Your task to perform on an android device: turn on translation in the chrome app Image 0: 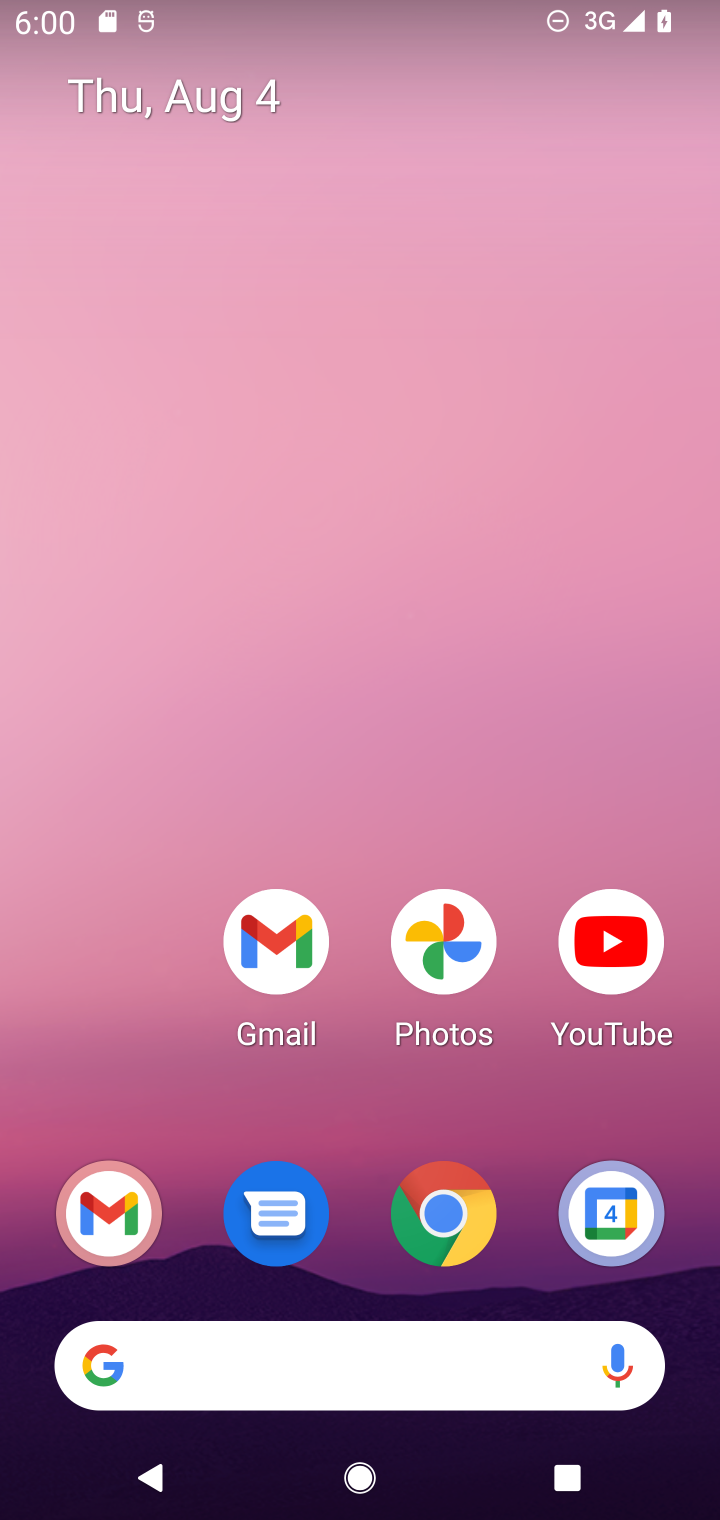
Step 0: press home button
Your task to perform on an android device: turn on translation in the chrome app Image 1: 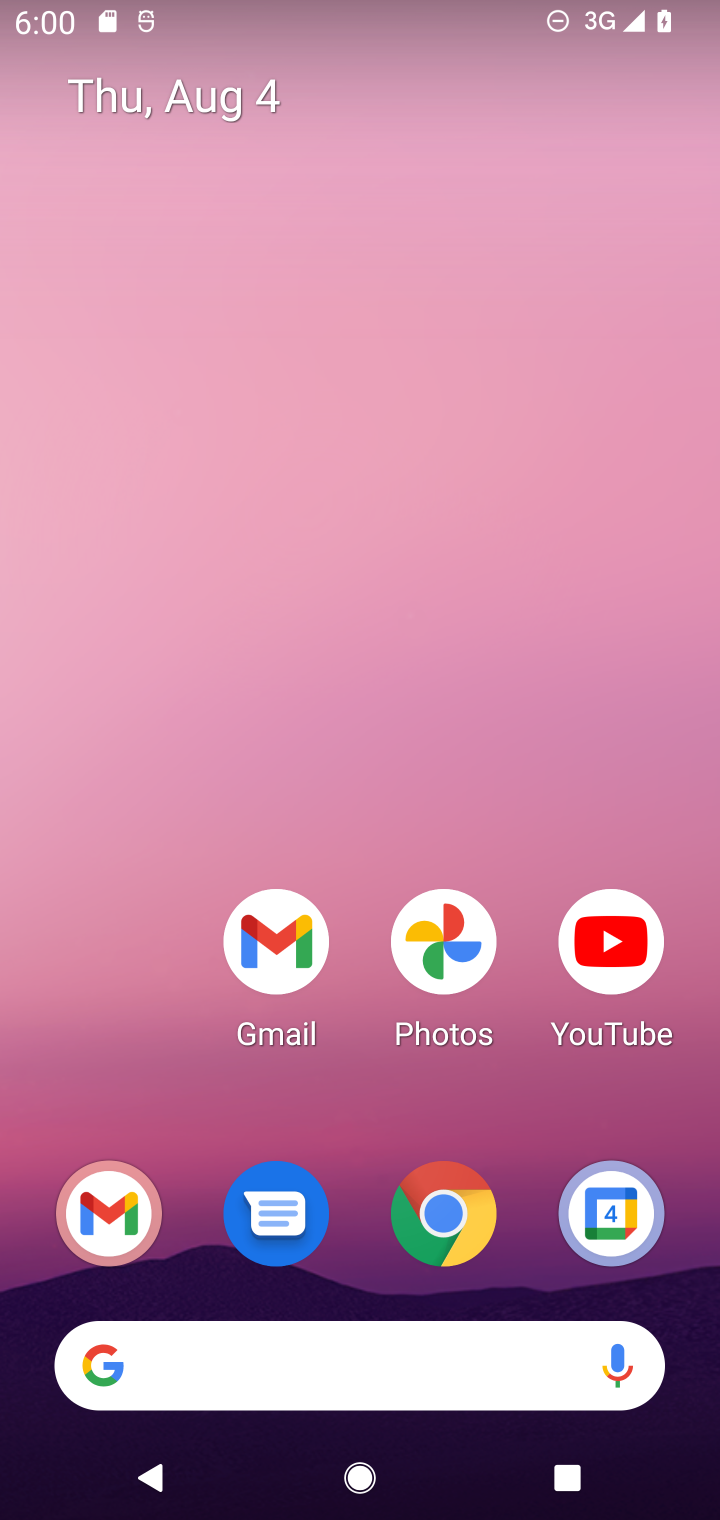
Step 1: drag from (187, 1135) to (216, 355)
Your task to perform on an android device: turn on translation in the chrome app Image 2: 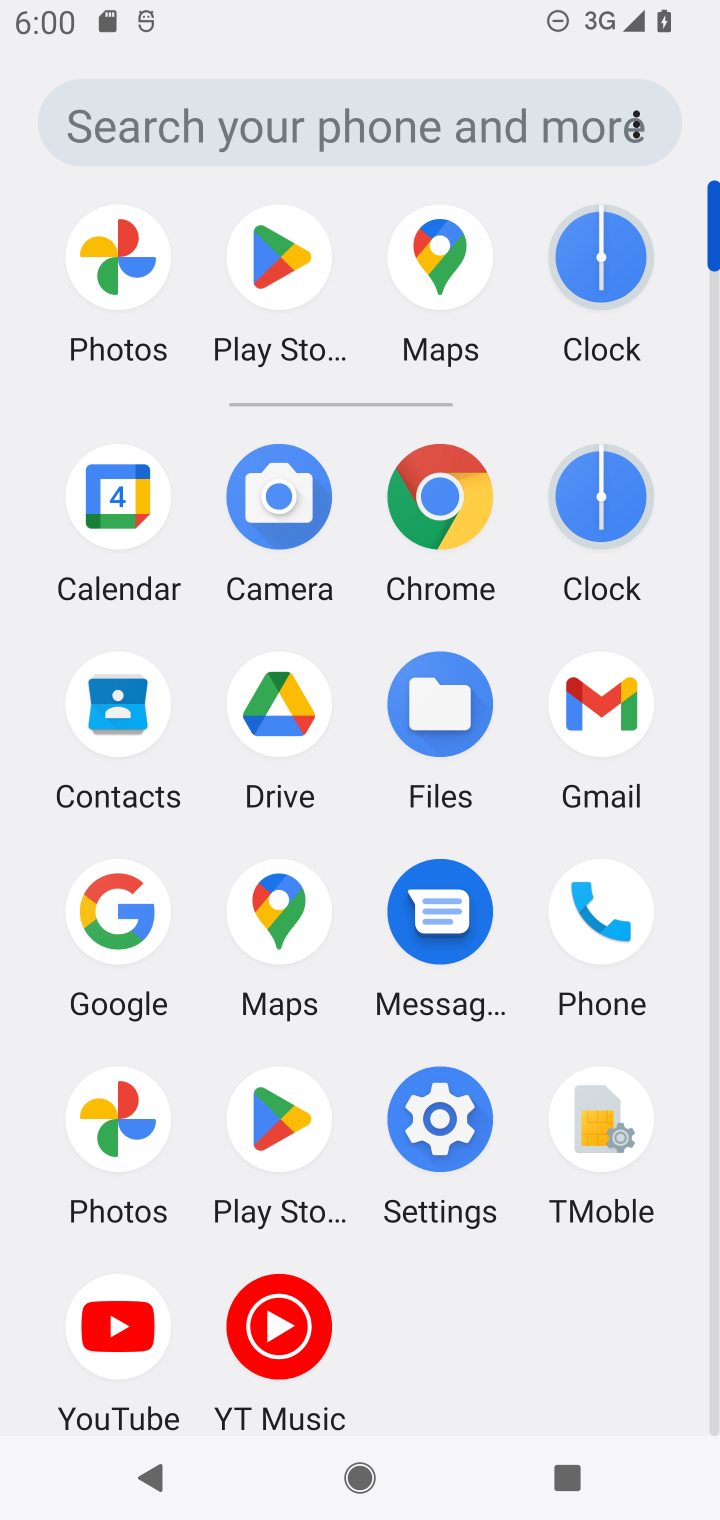
Step 2: click (449, 506)
Your task to perform on an android device: turn on translation in the chrome app Image 3: 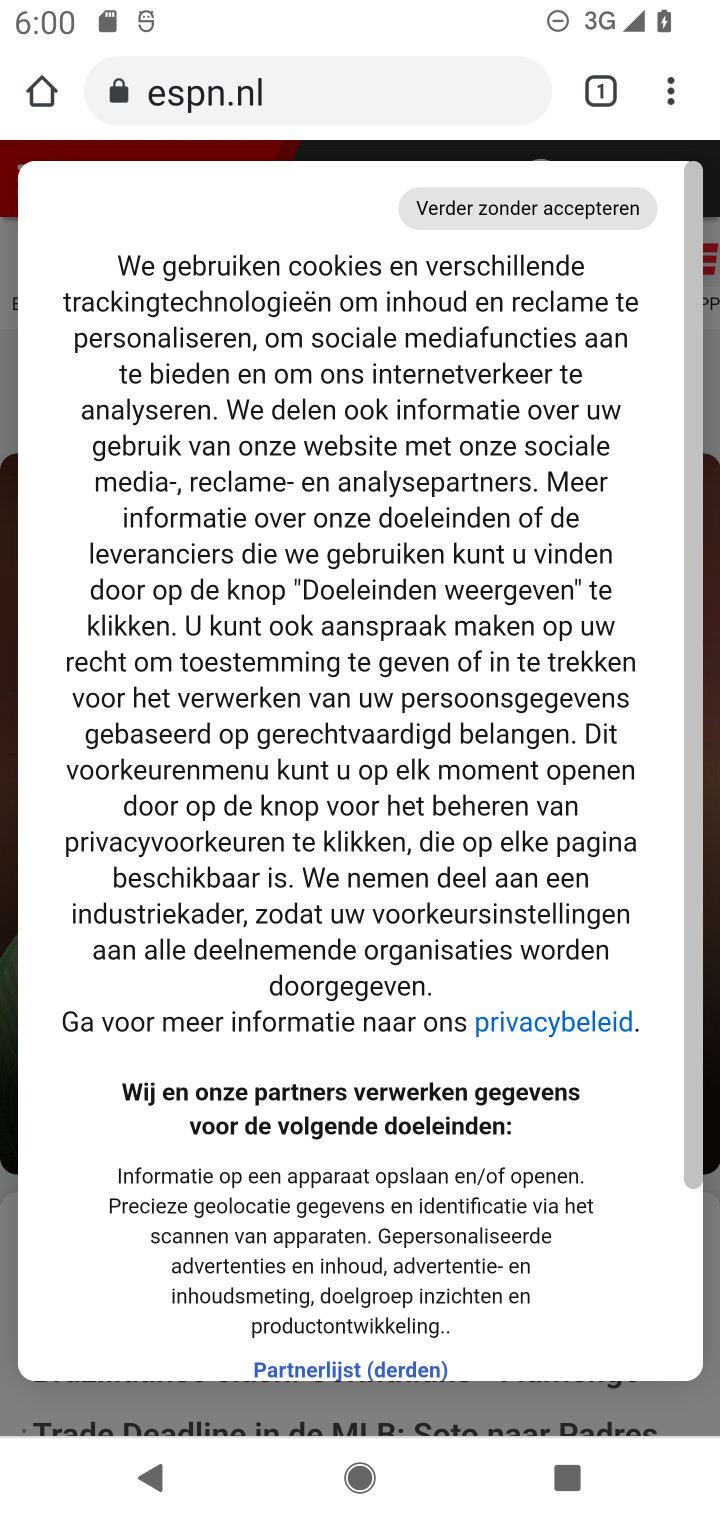
Step 3: click (673, 90)
Your task to perform on an android device: turn on translation in the chrome app Image 4: 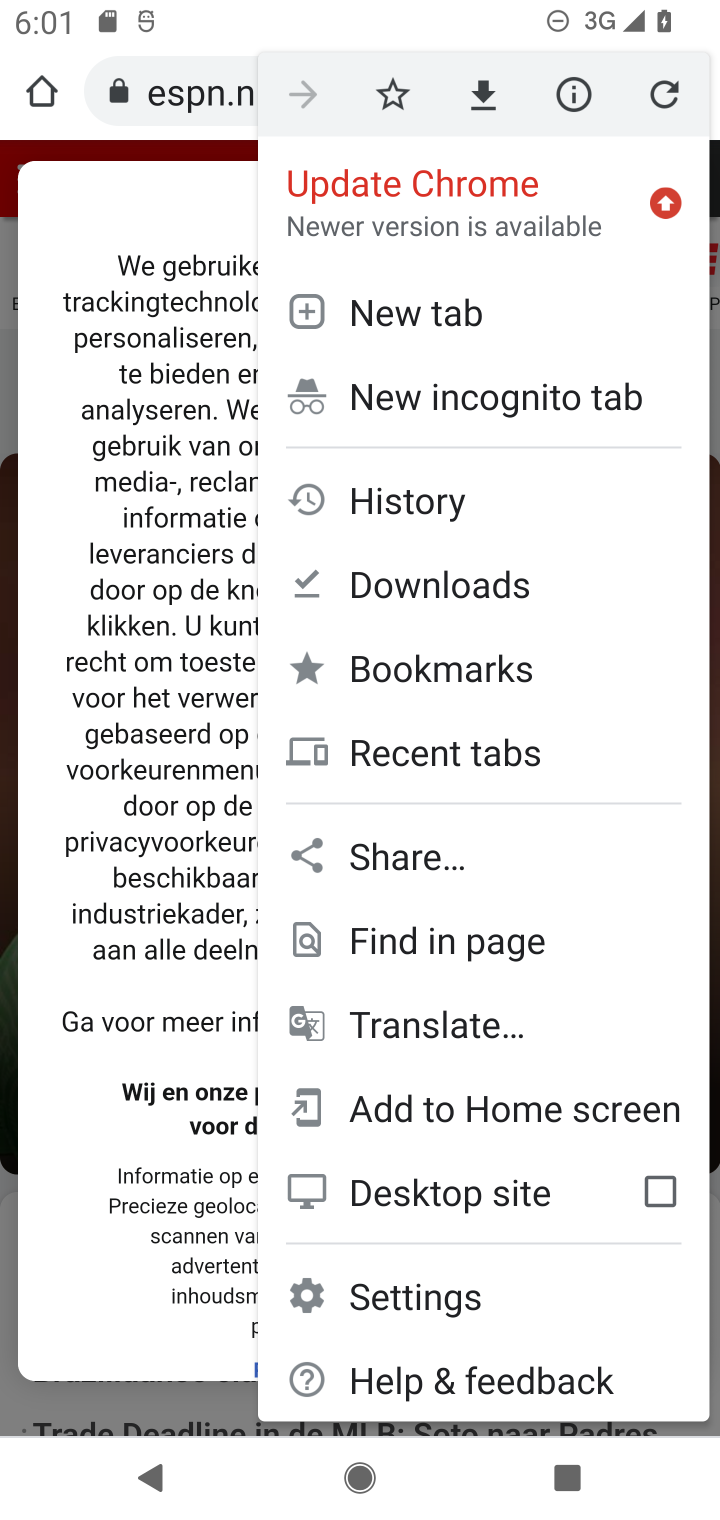
Step 4: click (468, 1304)
Your task to perform on an android device: turn on translation in the chrome app Image 5: 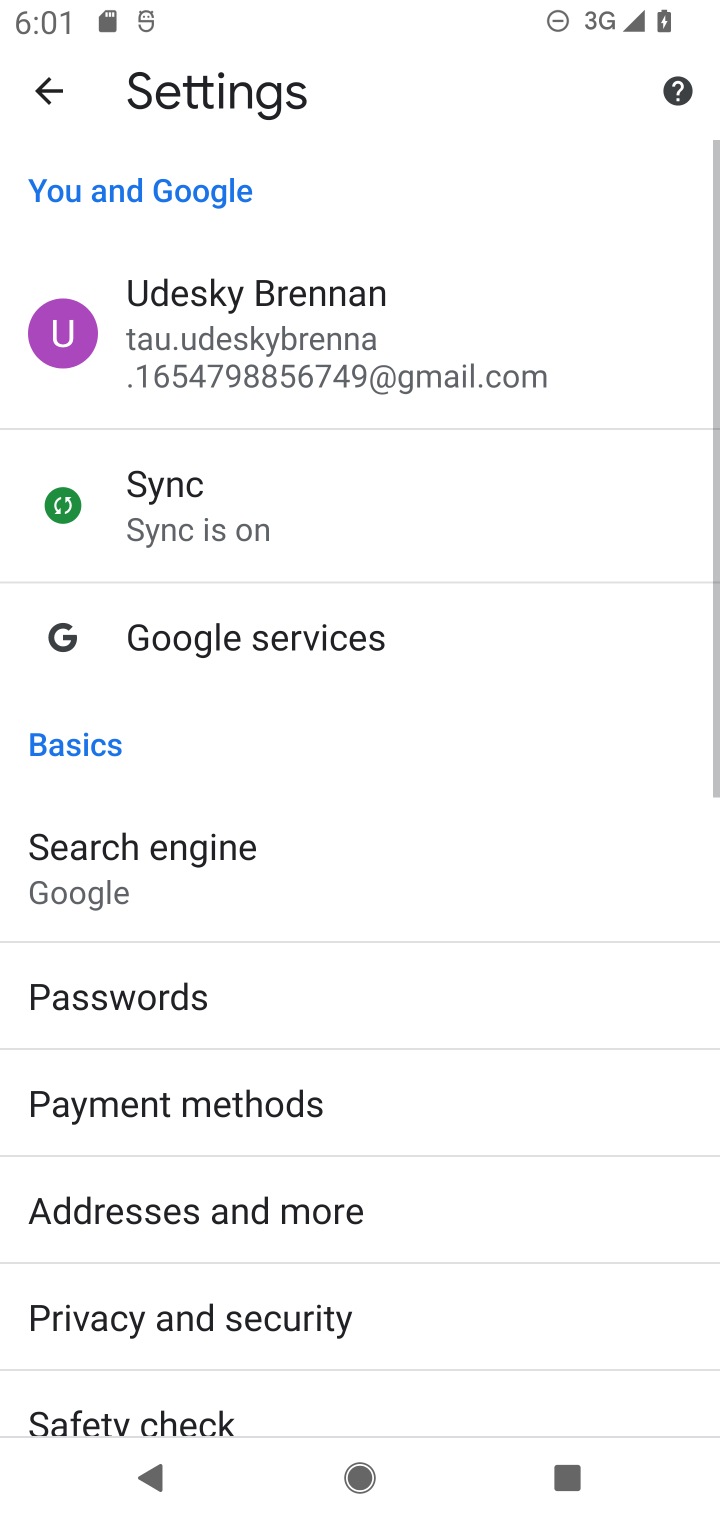
Step 5: drag from (517, 1101) to (516, 854)
Your task to perform on an android device: turn on translation in the chrome app Image 6: 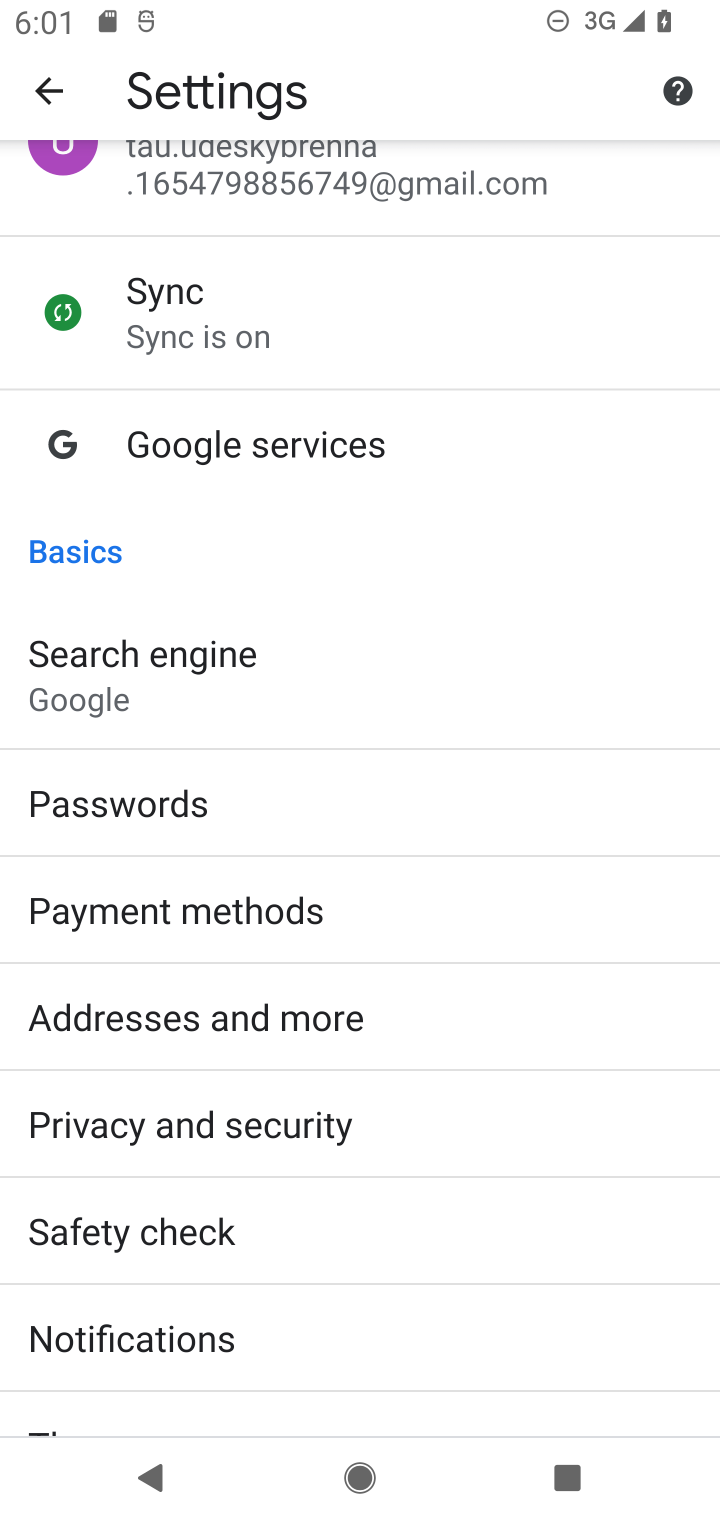
Step 6: drag from (517, 1152) to (524, 885)
Your task to perform on an android device: turn on translation in the chrome app Image 7: 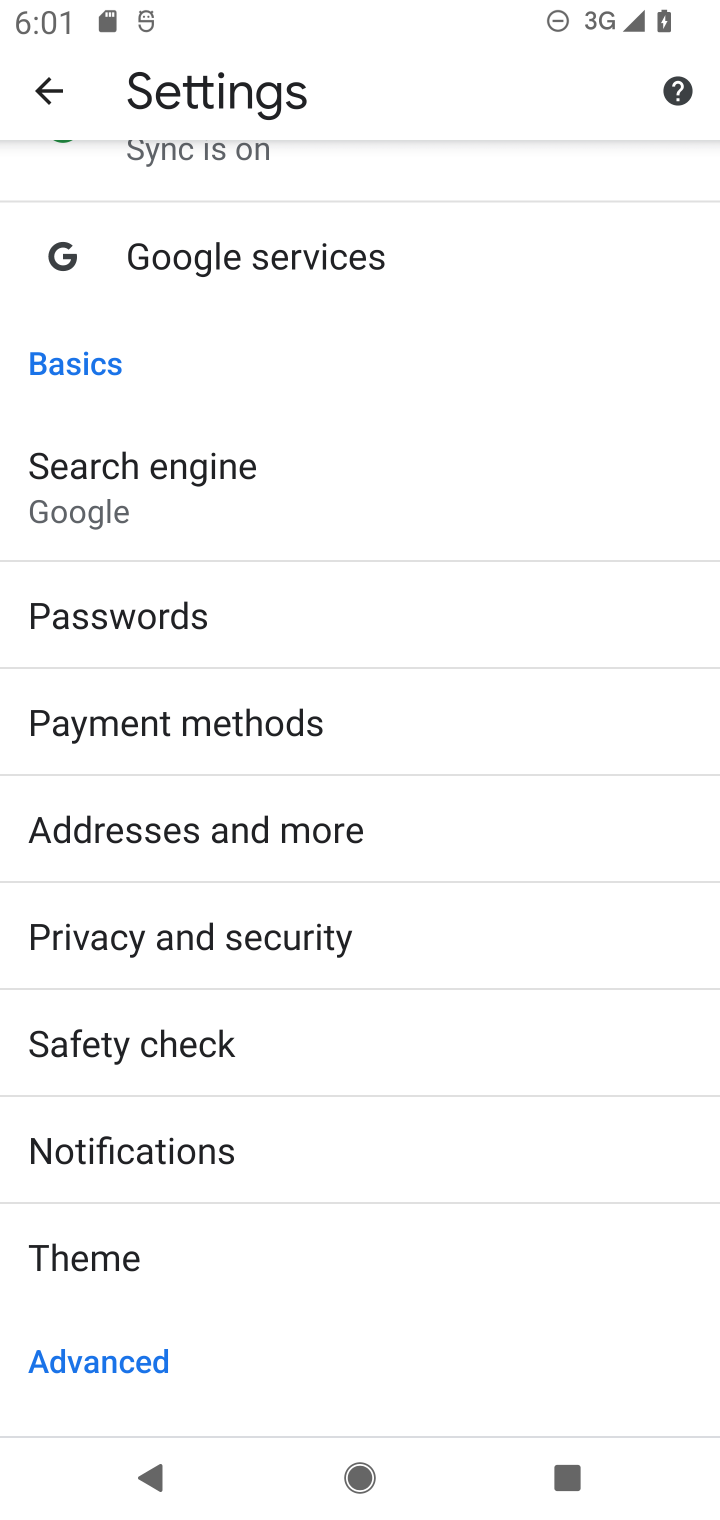
Step 7: drag from (497, 1128) to (488, 883)
Your task to perform on an android device: turn on translation in the chrome app Image 8: 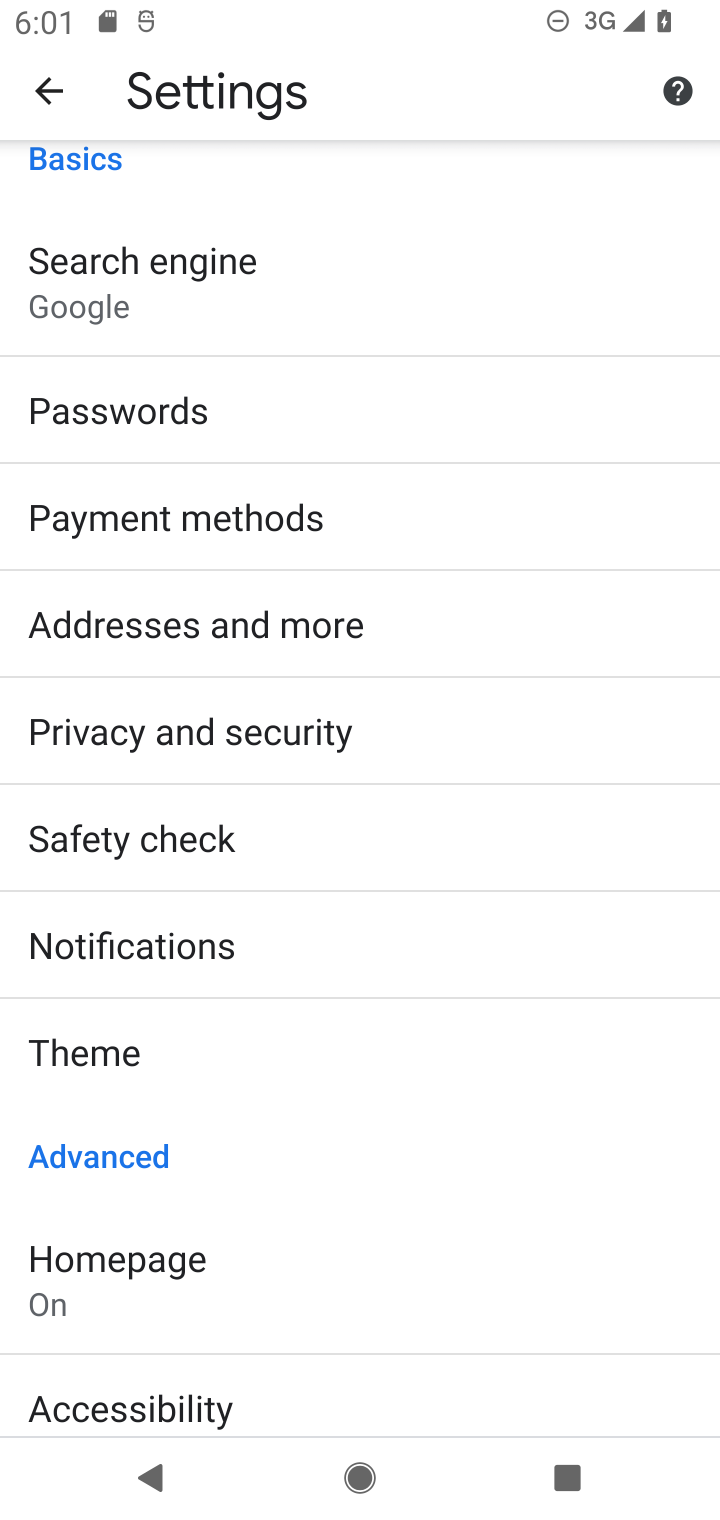
Step 8: drag from (491, 1152) to (441, 829)
Your task to perform on an android device: turn on translation in the chrome app Image 9: 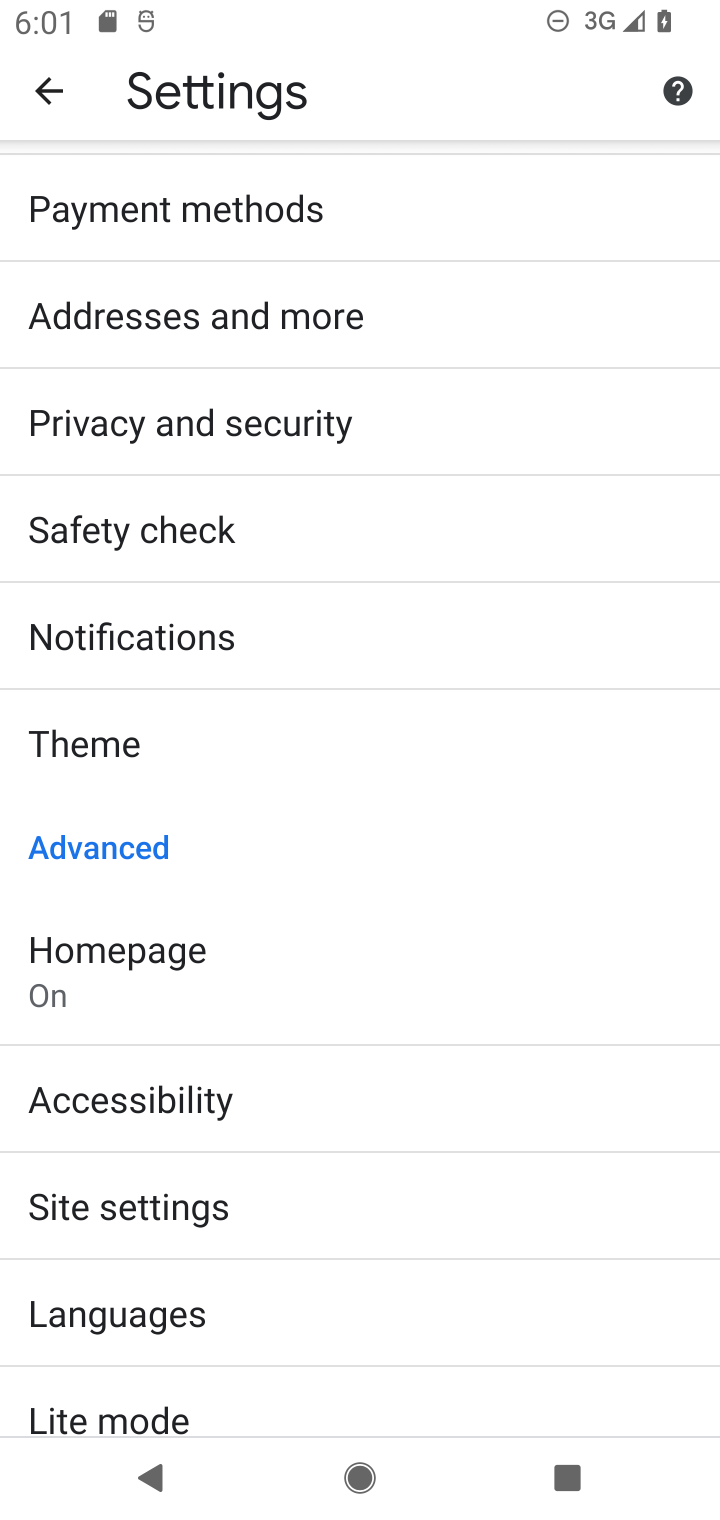
Step 9: drag from (469, 1130) to (442, 832)
Your task to perform on an android device: turn on translation in the chrome app Image 10: 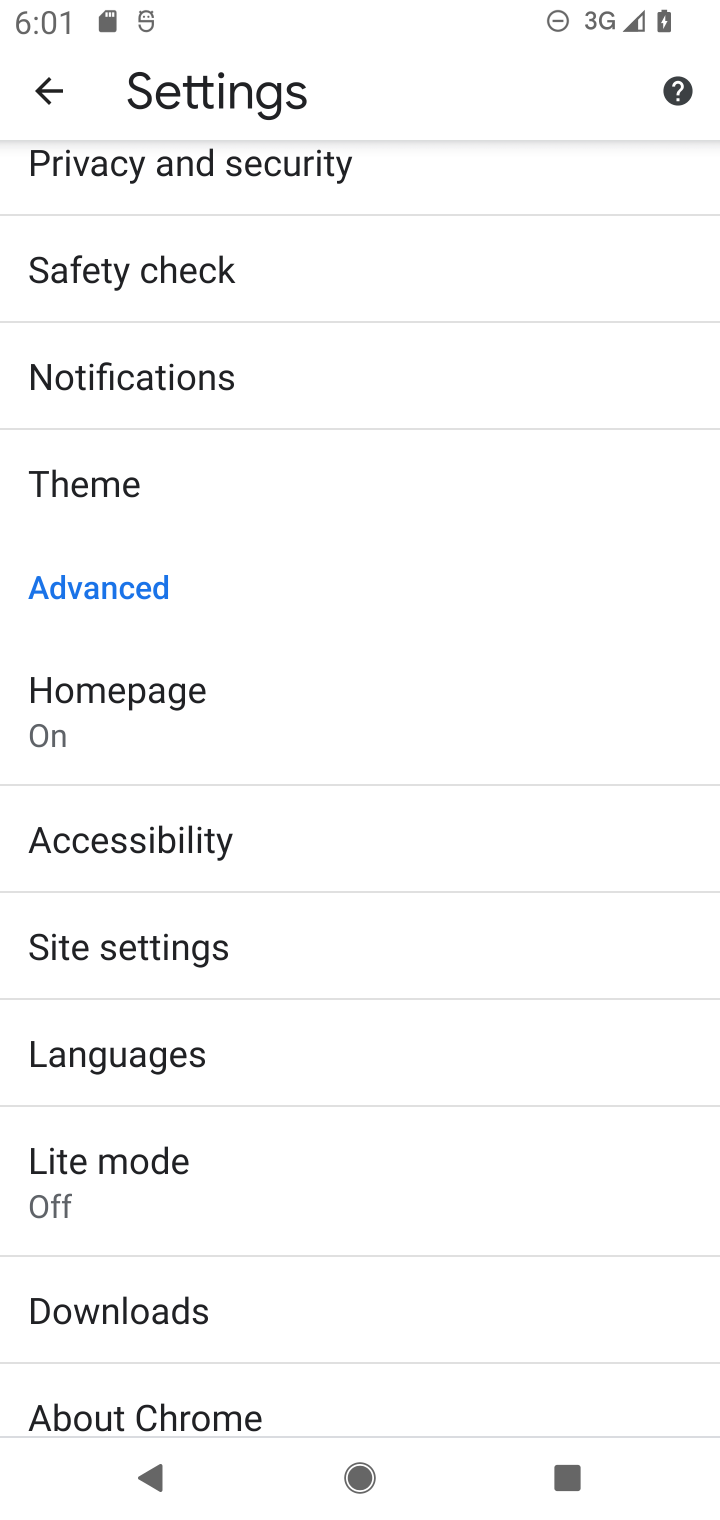
Step 10: drag from (504, 1063) to (504, 708)
Your task to perform on an android device: turn on translation in the chrome app Image 11: 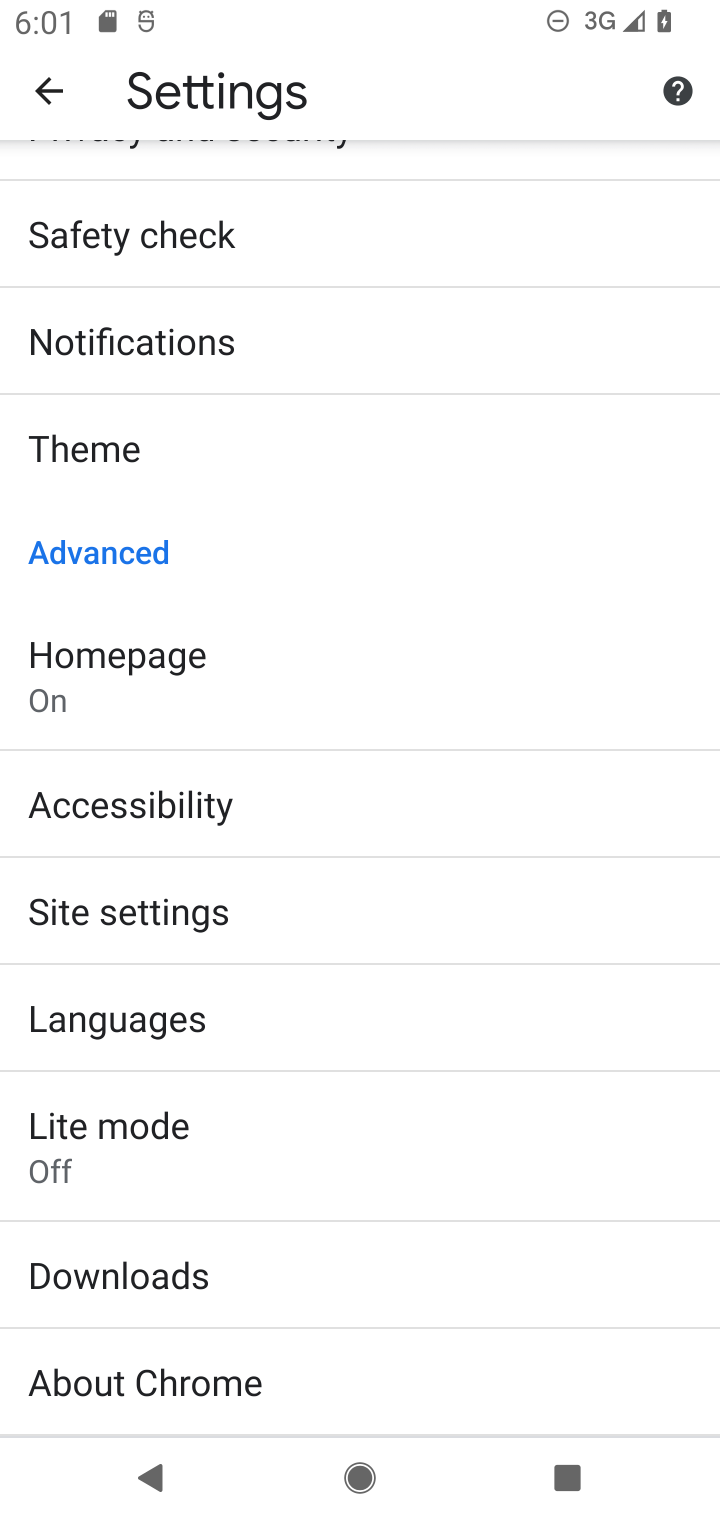
Step 11: click (478, 1018)
Your task to perform on an android device: turn on translation in the chrome app Image 12: 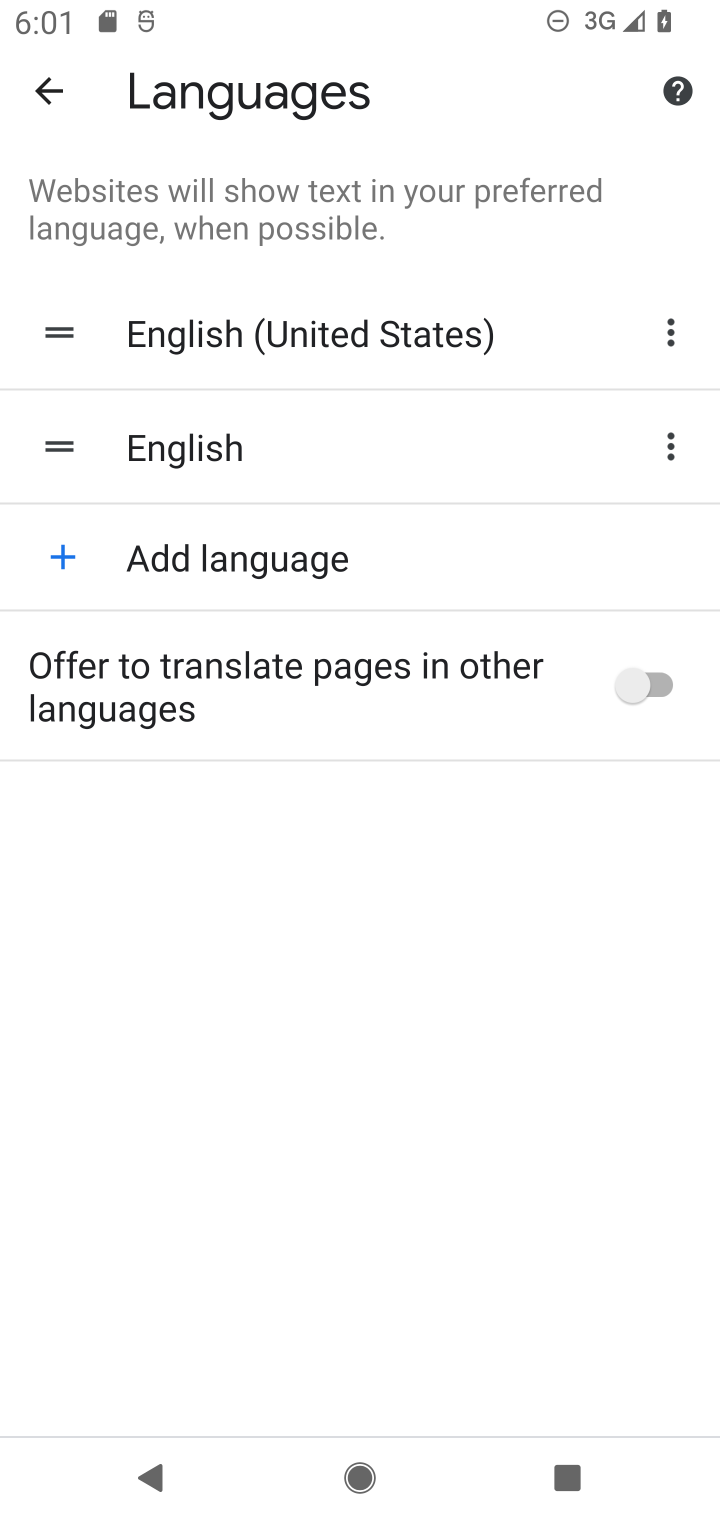
Step 12: click (632, 677)
Your task to perform on an android device: turn on translation in the chrome app Image 13: 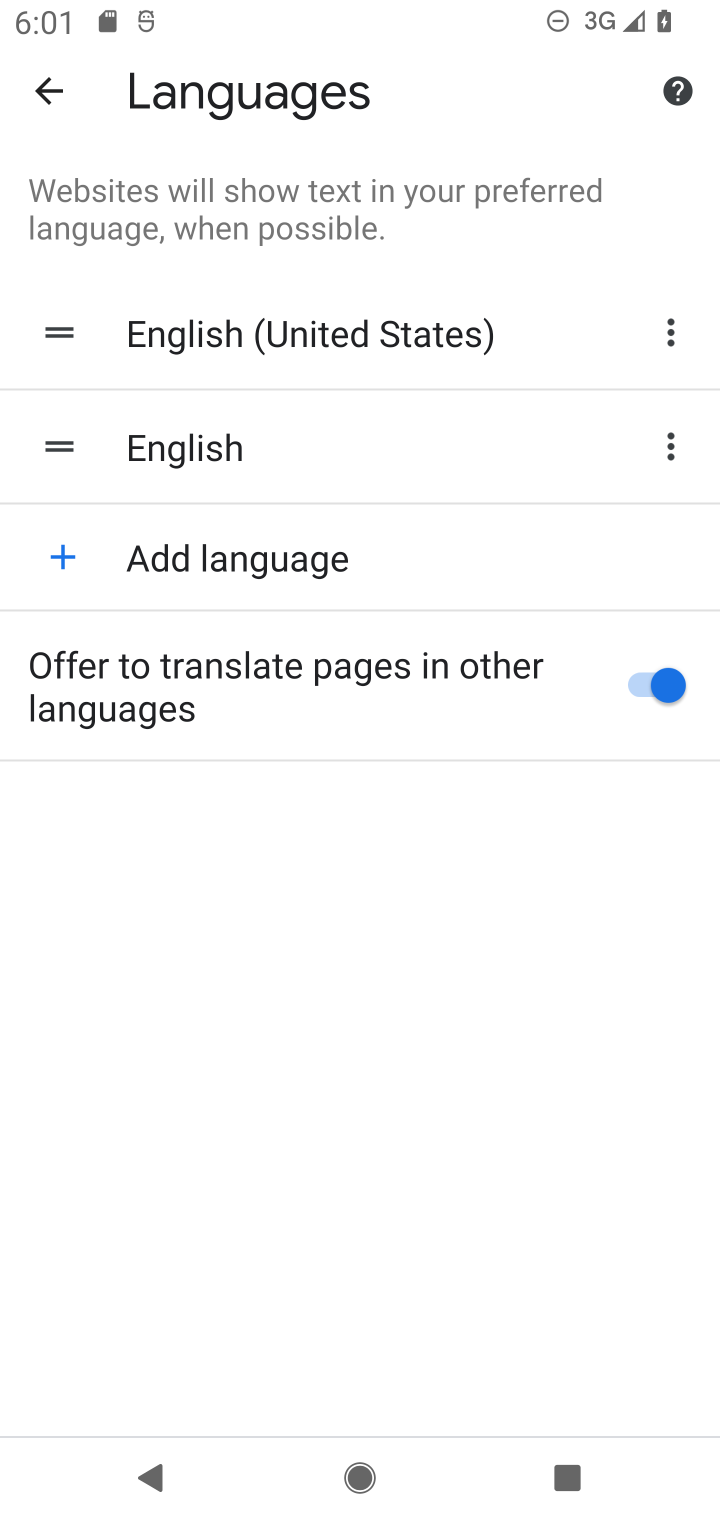
Step 13: task complete